Your task to perform on an android device: Go to ESPN.com Image 0: 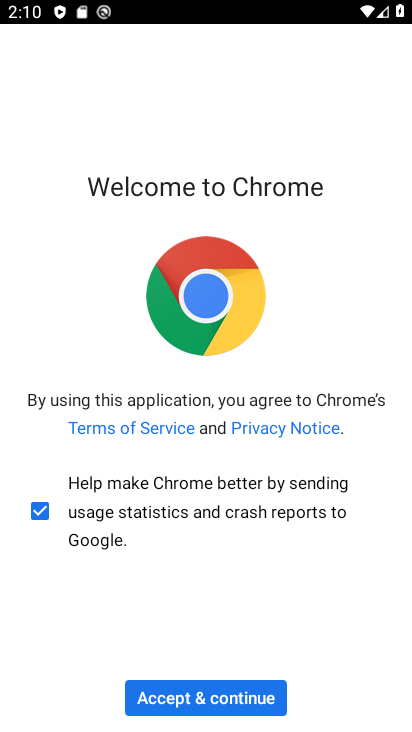
Step 0: press home button
Your task to perform on an android device: Go to ESPN.com Image 1: 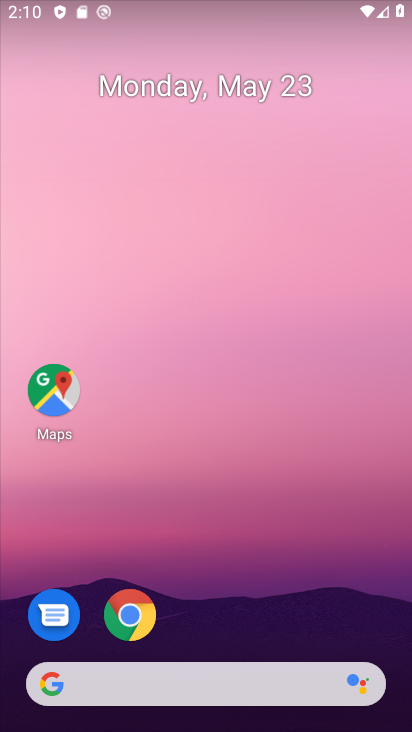
Step 1: drag from (368, 632) to (371, 121)
Your task to perform on an android device: Go to ESPN.com Image 2: 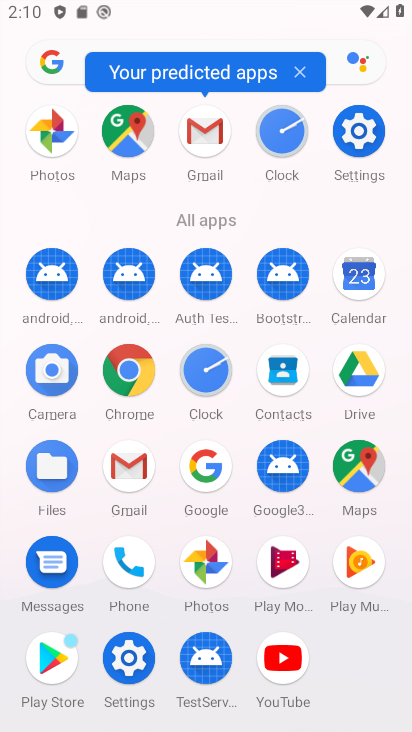
Step 2: click (133, 389)
Your task to perform on an android device: Go to ESPN.com Image 3: 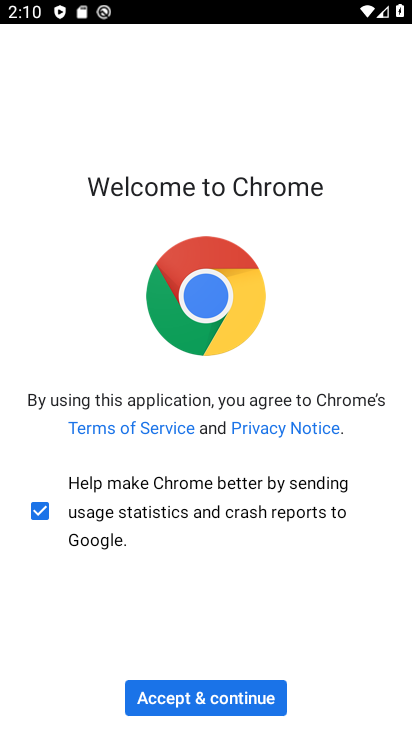
Step 3: click (222, 698)
Your task to perform on an android device: Go to ESPN.com Image 4: 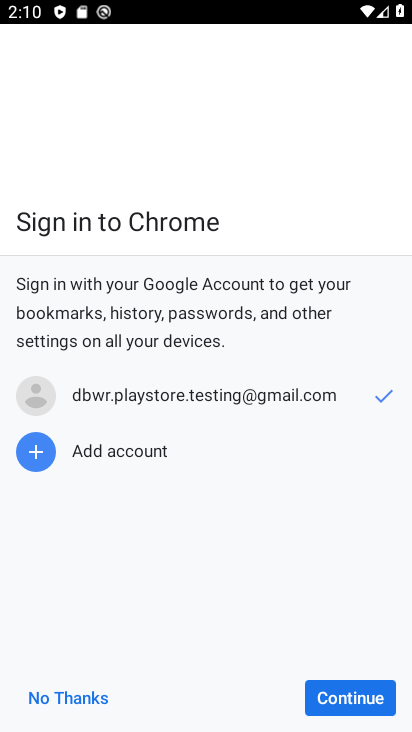
Step 4: click (342, 710)
Your task to perform on an android device: Go to ESPN.com Image 5: 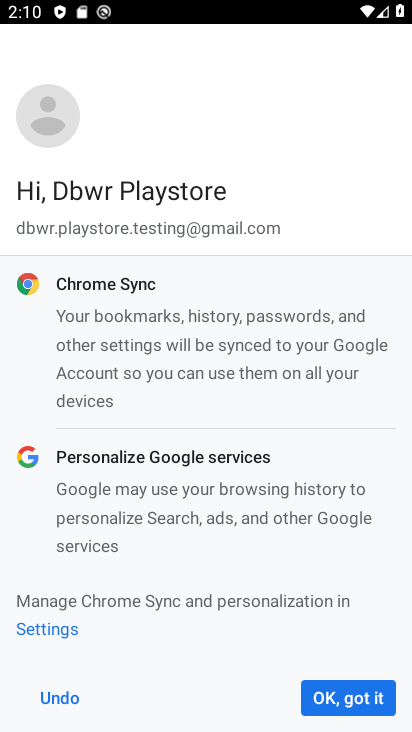
Step 5: click (342, 710)
Your task to perform on an android device: Go to ESPN.com Image 6: 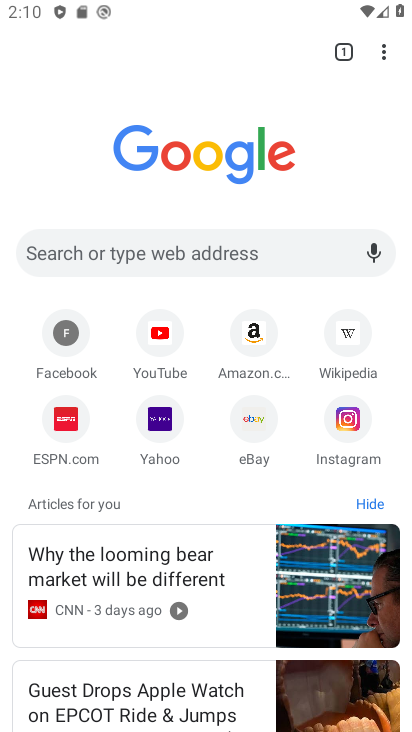
Step 6: click (77, 429)
Your task to perform on an android device: Go to ESPN.com Image 7: 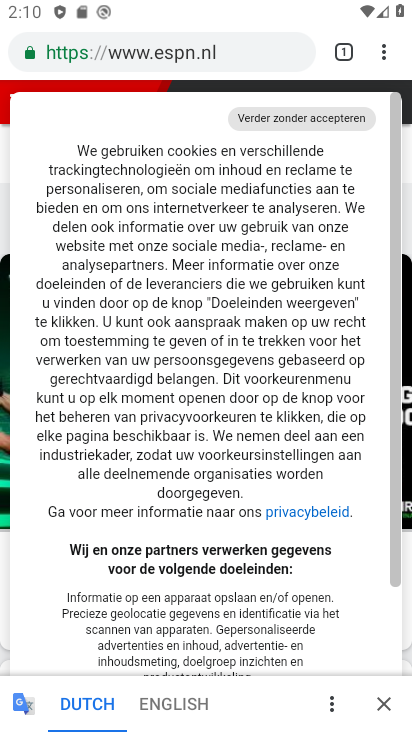
Step 7: task complete